Your task to perform on an android device: open chrome privacy settings Image 0: 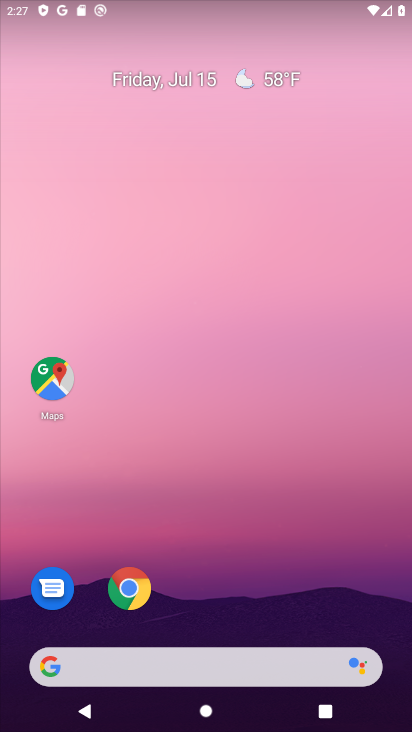
Step 0: click (135, 593)
Your task to perform on an android device: open chrome privacy settings Image 1: 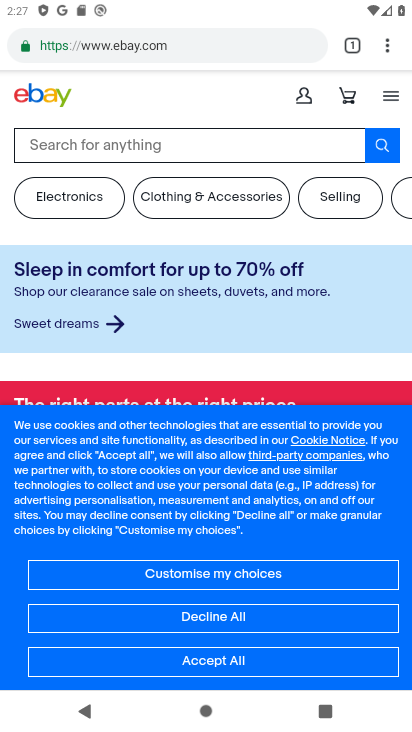
Step 1: click (379, 53)
Your task to perform on an android device: open chrome privacy settings Image 2: 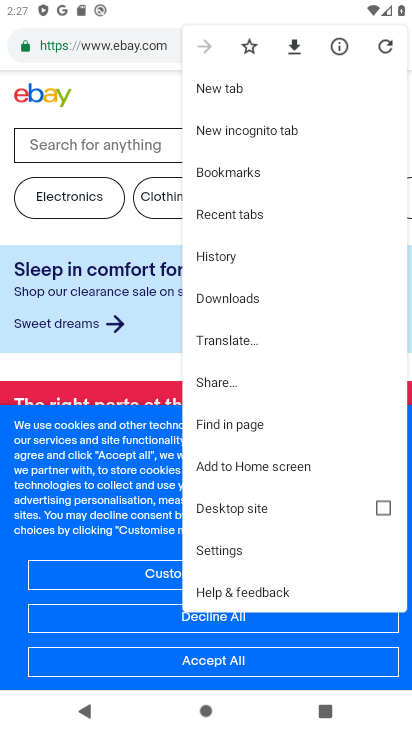
Step 2: click (249, 549)
Your task to perform on an android device: open chrome privacy settings Image 3: 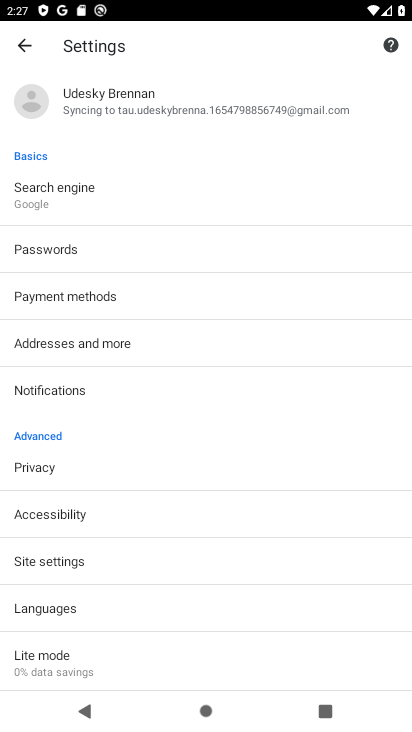
Step 3: click (67, 468)
Your task to perform on an android device: open chrome privacy settings Image 4: 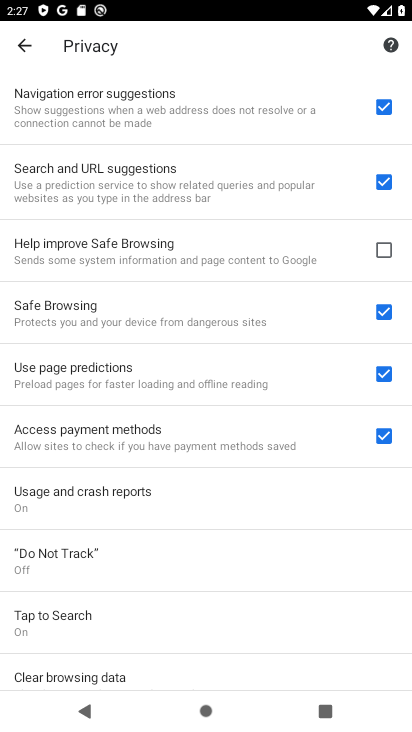
Step 4: task complete